Your task to perform on an android device: Search for "custom wallet" on Etsy. Image 0: 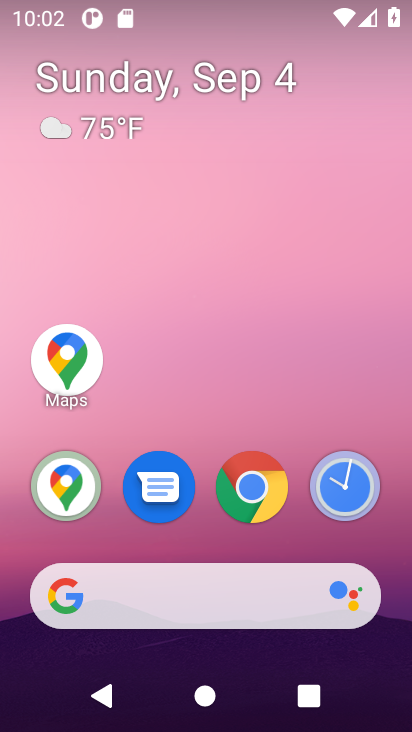
Step 0: click (238, 493)
Your task to perform on an android device: Search for "custom wallet" on Etsy. Image 1: 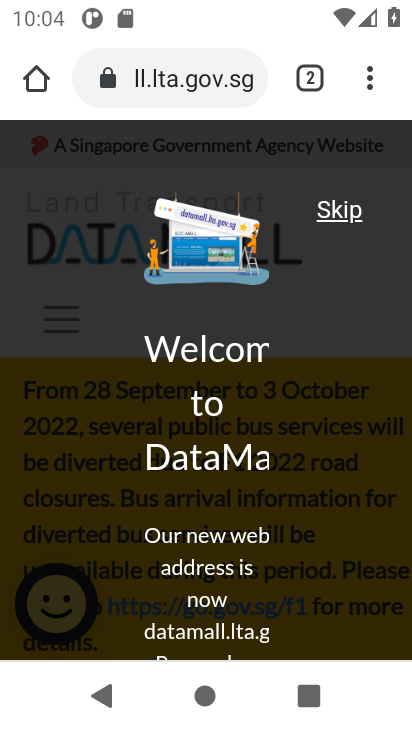
Step 1: click (308, 199)
Your task to perform on an android device: Search for "custom wallet" on Etsy. Image 2: 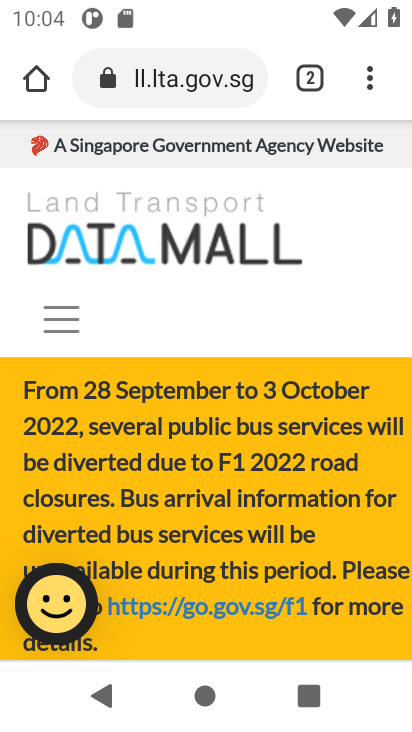
Step 2: task complete